Your task to perform on an android device: remove spam from my inbox in the gmail app Image 0: 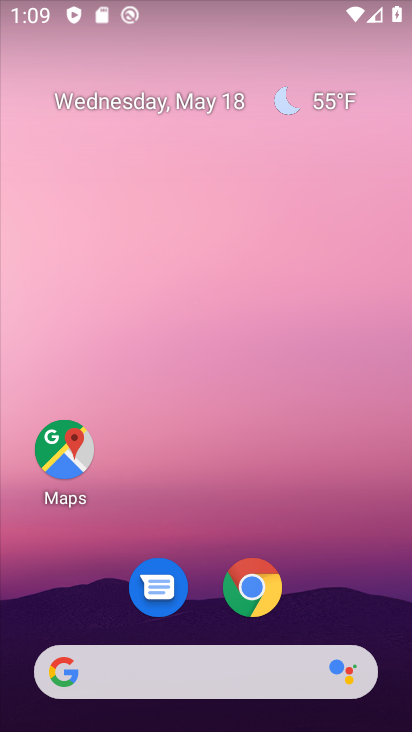
Step 0: drag from (209, 606) to (290, 35)
Your task to perform on an android device: remove spam from my inbox in the gmail app Image 1: 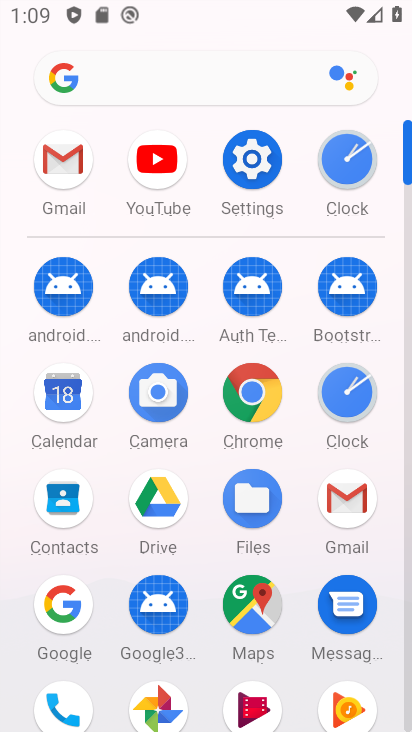
Step 1: click (79, 161)
Your task to perform on an android device: remove spam from my inbox in the gmail app Image 2: 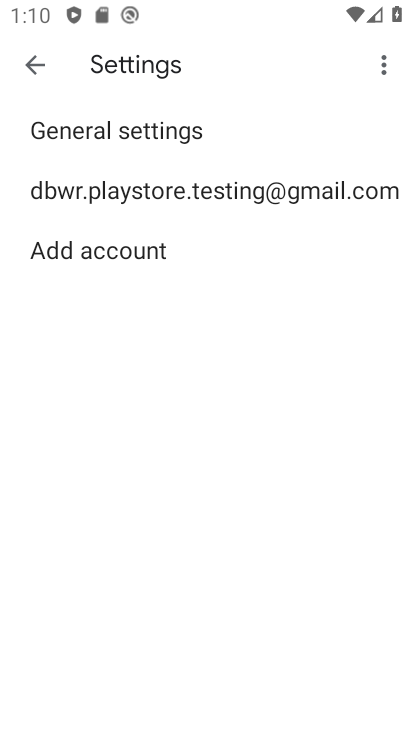
Step 2: click (38, 64)
Your task to perform on an android device: remove spam from my inbox in the gmail app Image 3: 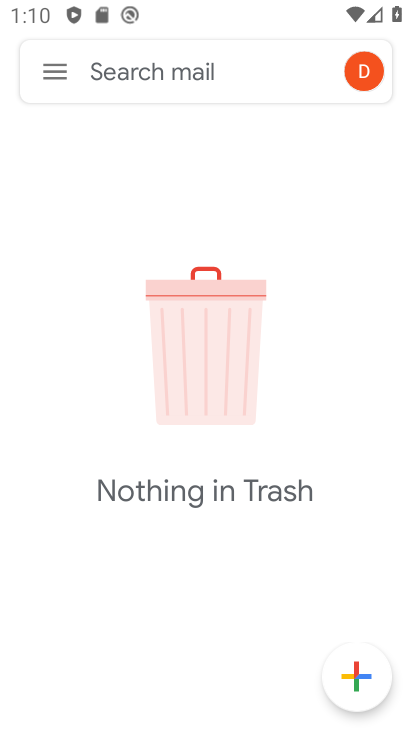
Step 3: click (56, 70)
Your task to perform on an android device: remove spam from my inbox in the gmail app Image 4: 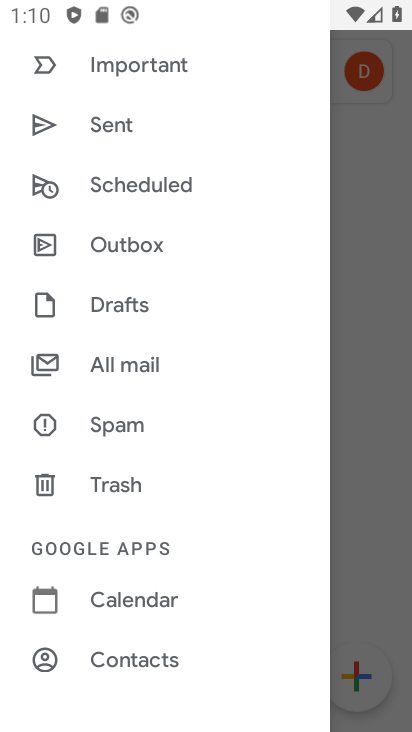
Step 4: drag from (145, 182) to (145, 626)
Your task to perform on an android device: remove spam from my inbox in the gmail app Image 5: 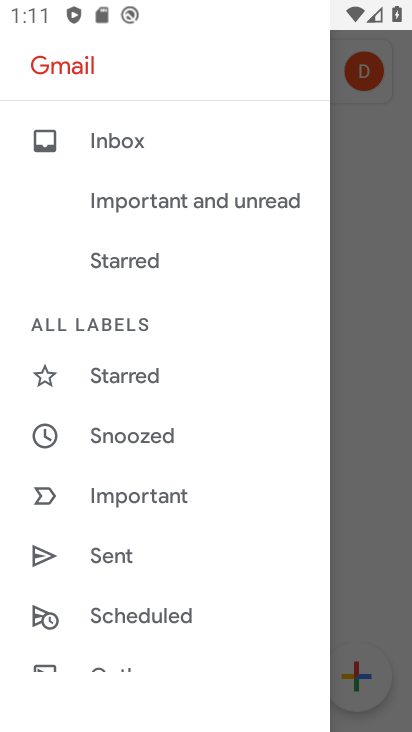
Step 5: drag from (105, 620) to (217, 117)
Your task to perform on an android device: remove spam from my inbox in the gmail app Image 6: 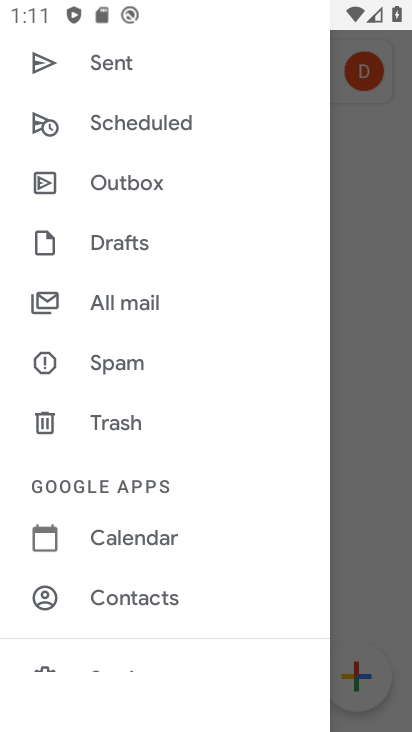
Step 6: click (103, 351)
Your task to perform on an android device: remove spam from my inbox in the gmail app Image 7: 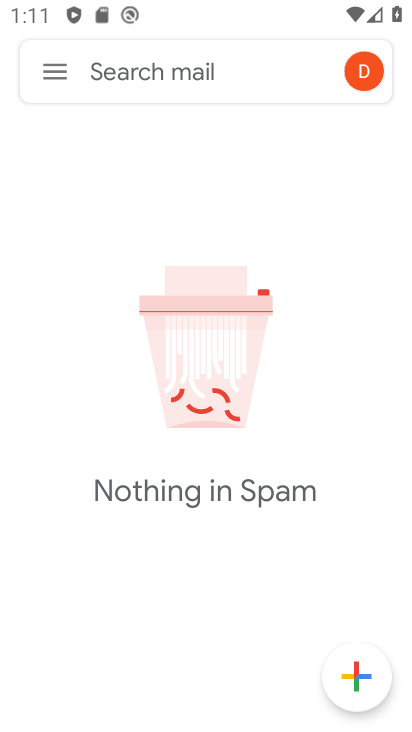
Step 7: task complete